Your task to perform on an android device: Open notification settings Image 0: 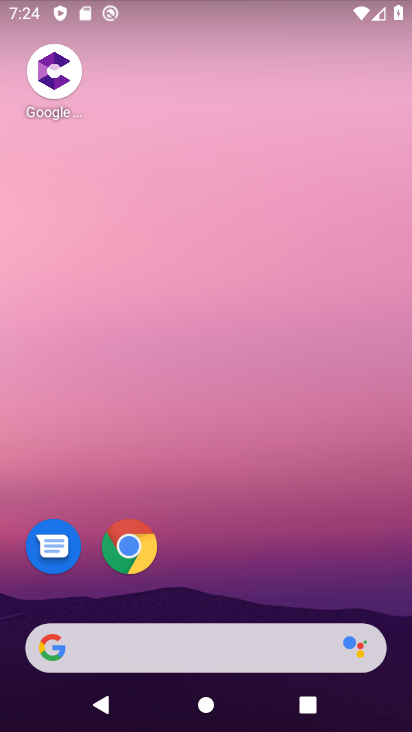
Step 0: drag from (228, 576) to (273, 3)
Your task to perform on an android device: Open notification settings Image 1: 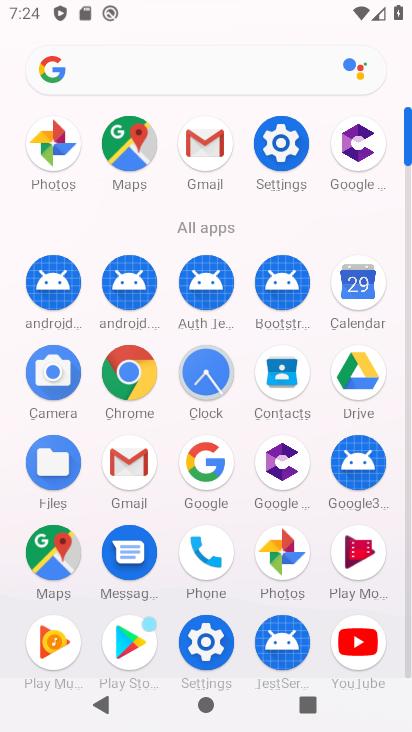
Step 1: click (274, 173)
Your task to perform on an android device: Open notification settings Image 2: 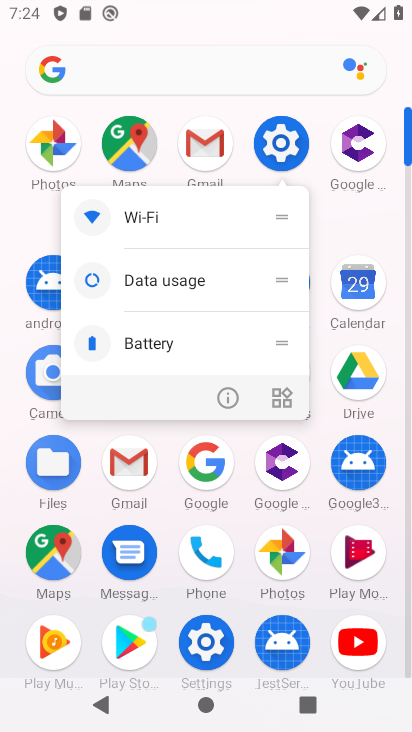
Step 2: click (285, 137)
Your task to perform on an android device: Open notification settings Image 3: 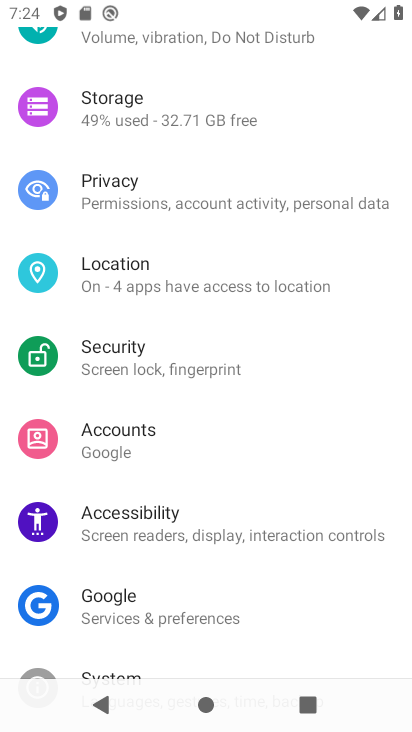
Step 3: drag from (166, 253) to (150, 731)
Your task to perform on an android device: Open notification settings Image 4: 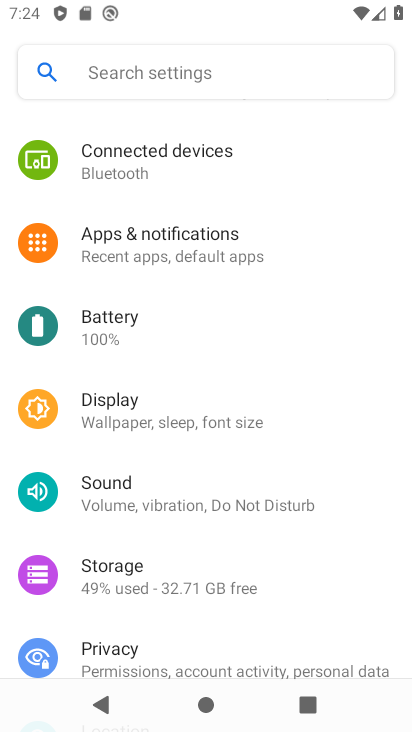
Step 4: click (155, 263)
Your task to perform on an android device: Open notification settings Image 5: 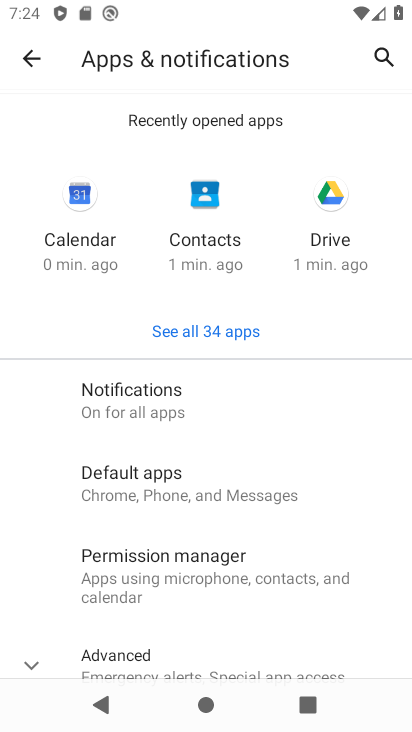
Step 5: click (189, 402)
Your task to perform on an android device: Open notification settings Image 6: 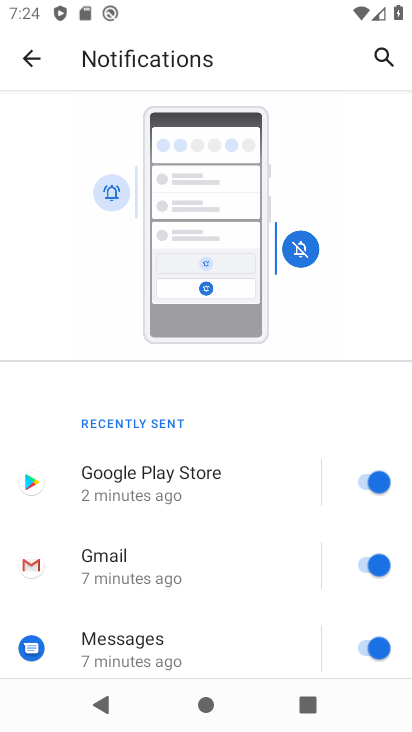
Step 6: task complete